Your task to perform on an android device: move a message to another label in the gmail app Image 0: 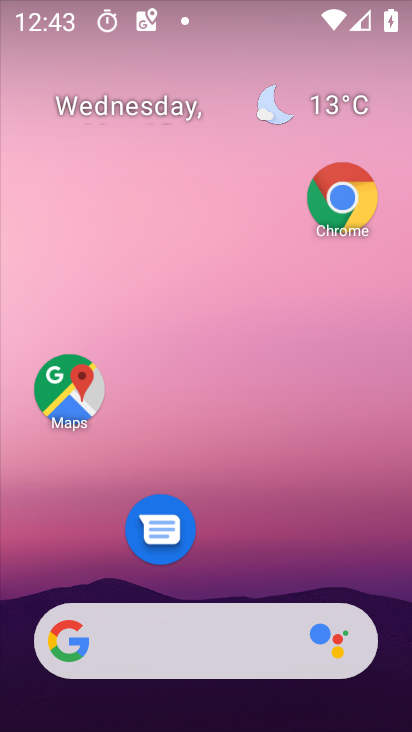
Step 0: drag from (231, 519) to (256, 159)
Your task to perform on an android device: move a message to another label in the gmail app Image 1: 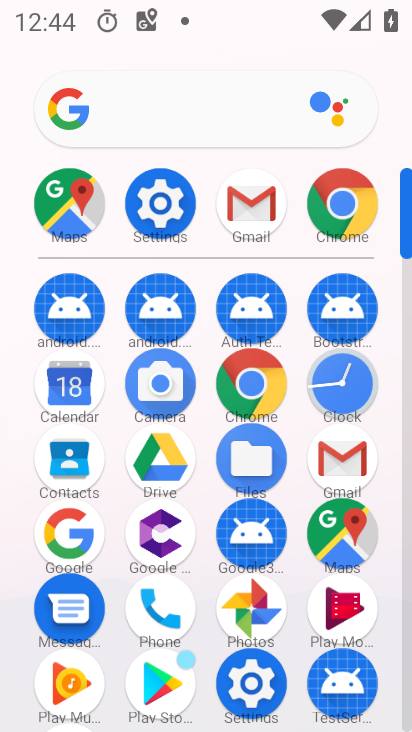
Step 1: click (227, 213)
Your task to perform on an android device: move a message to another label in the gmail app Image 2: 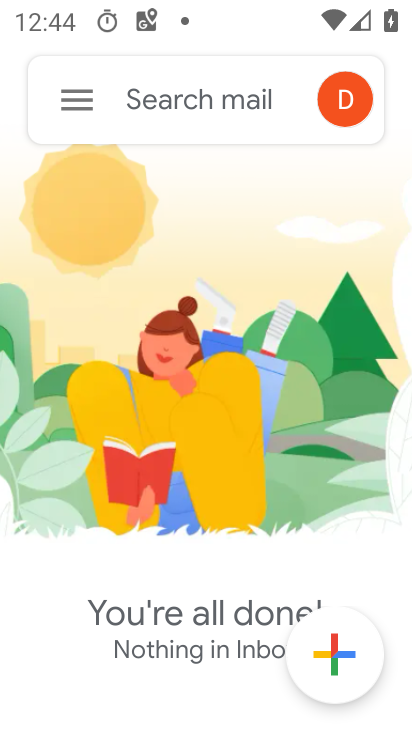
Step 2: task complete